Your task to perform on an android device: turn on priority inbox in the gmail app Image 0: 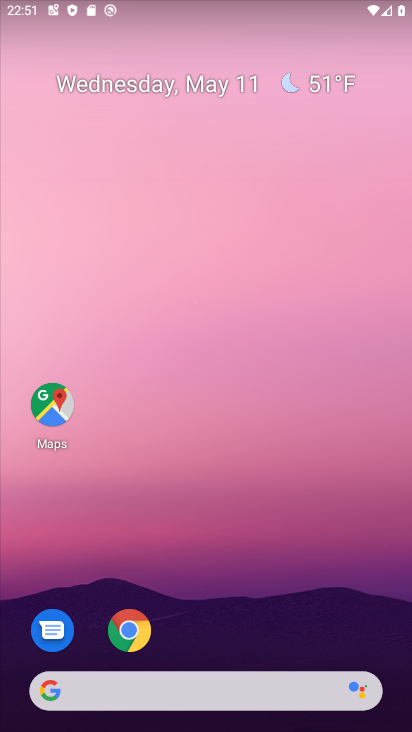
Step 0: drag from (206, 729) to (207, 99)
Your task to perform on an android device: turn on priority inbox in the gmail app Image 1: 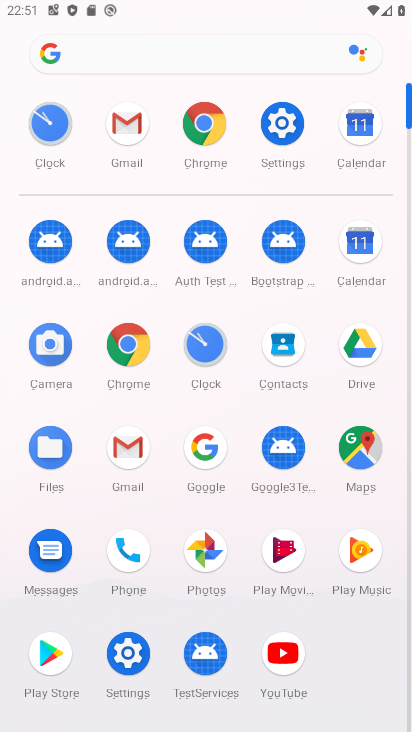
Step 1: click (125, 448)
Your task to perform on an android device: turn on priority inbox in the gmail app Image 2: 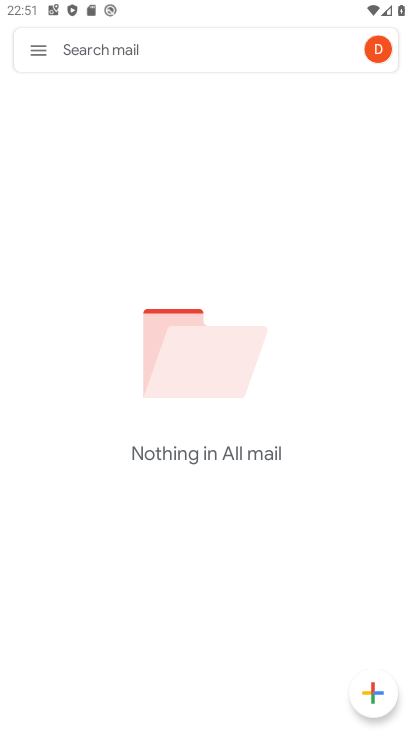
Step 2: click (43, 57)
Your task to perform on an android device: turn on priority inbox in the gmail app Image 3: 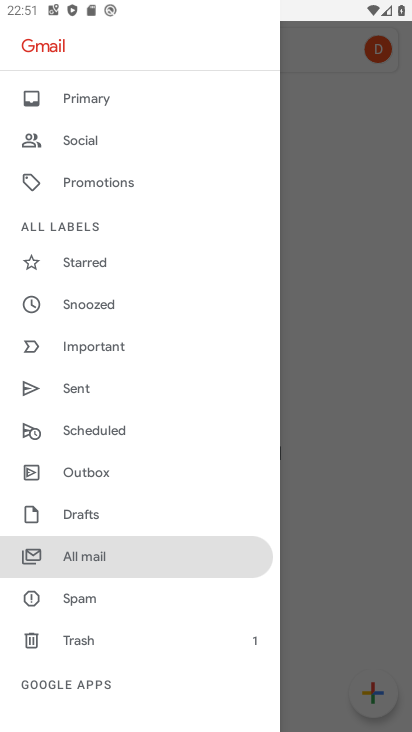
Step 3: drag from (123, 640) to (166, 291)
Your task to perform on an android device: turn on priority inbox in the gmail app Image 4: 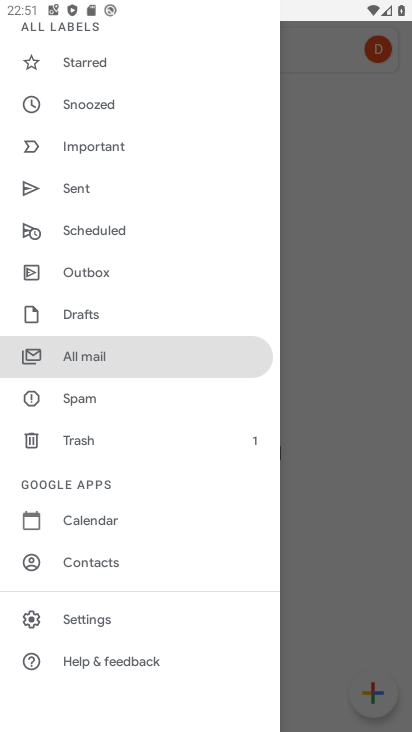
Step 4: click (91, 617)
Your task to perform on an android device: turn on priority inbox in the gmail app Image 5: 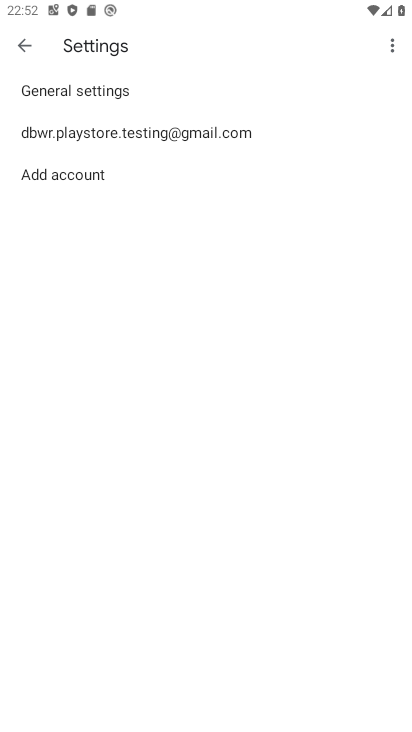
Step 5: click (116, 133)
Your task to perform on an android device: turn on priority inbox in the gmail app Image 6: 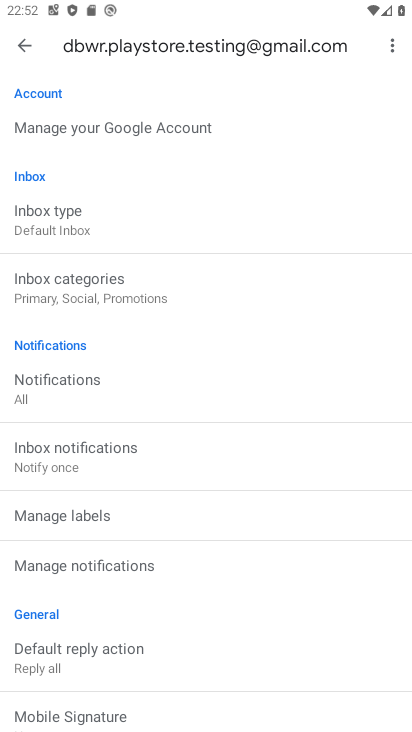
Step 6: click (57, 220)
Your task to perform on an android device: turn on priority inbox in the gmail app Image 7: 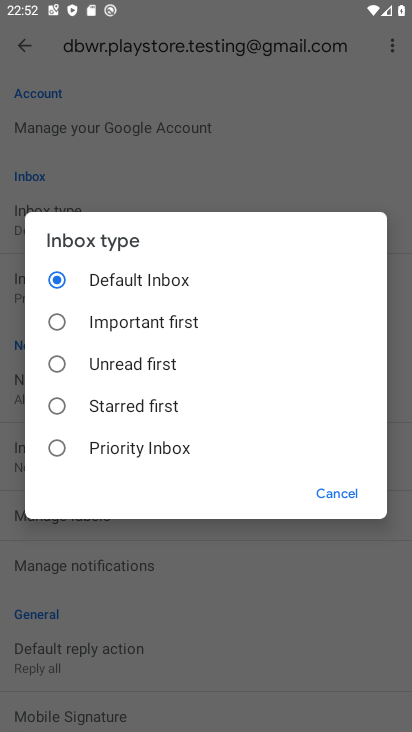
Step 7: click (57, 446)
Your task to perform on an android device: turn on priority inbox in the gmail app Image 8: 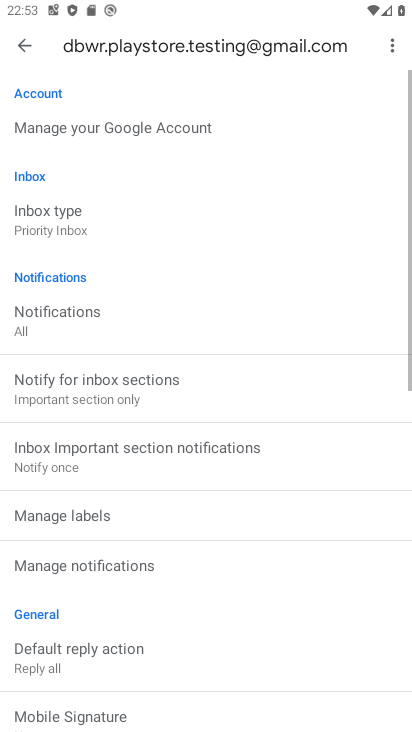
Step 8: task complete